Your task to perform on an android device: toggle notifications settings in the gmail app Image 0: 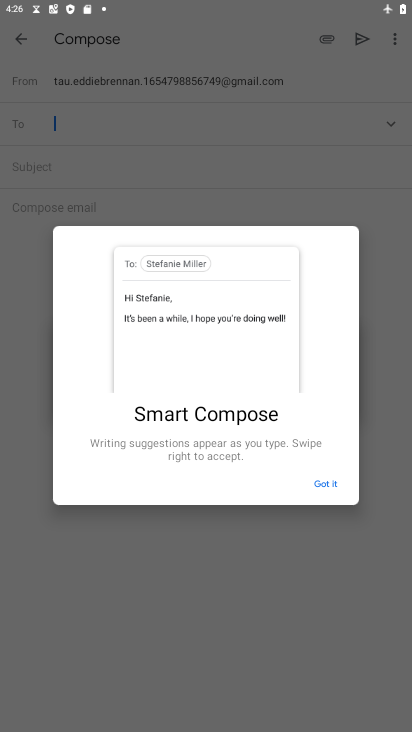
Step 0: press home button
Your task to perform on an android device: toggle notifications settings in the gmail app Image 1: 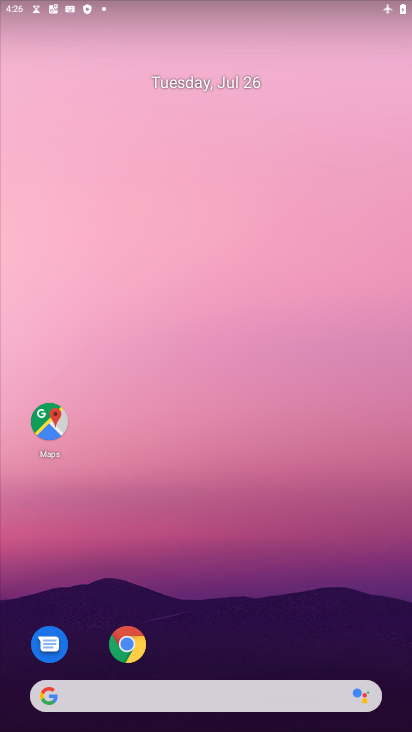
Step 1: drag from (252, 659) to (179, 198)
Your task to perform on an android device: toggle notifications settings in the gmail app Image 2: 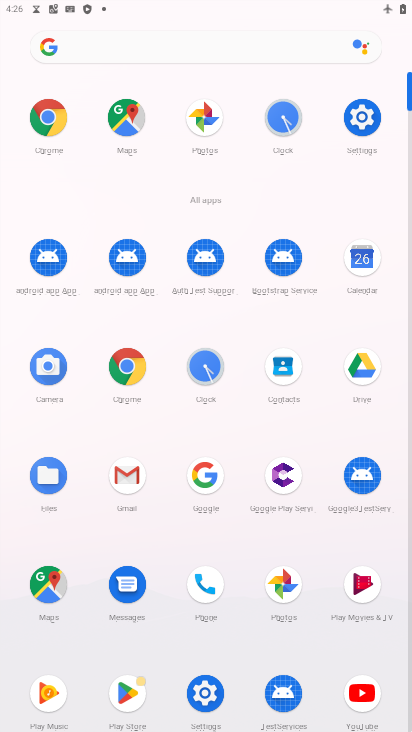
Step 2: click (127, 470)
Your task to perform on an android device: toggle notifications settings in the gmail app Image 3: 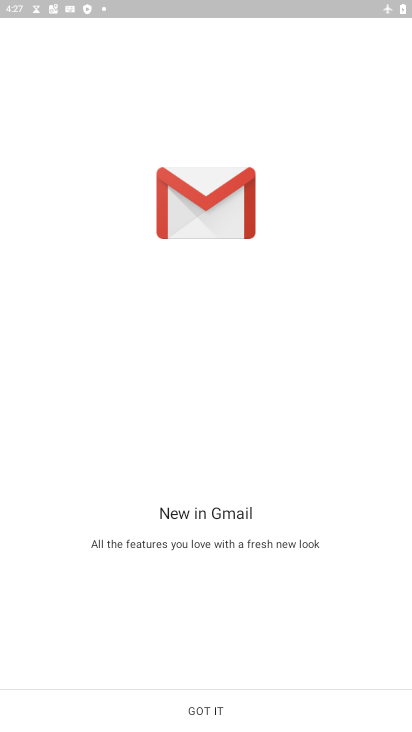
Step 3: click (207, 712)
Your task to perform on an android device: toggle notifications settings in the gmail app Image 4: 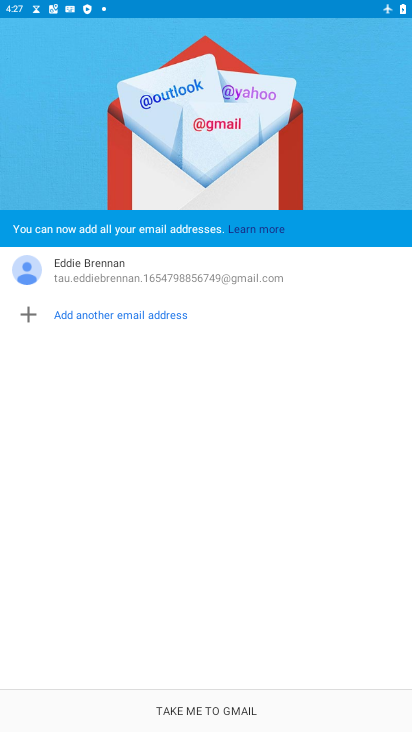
Step 4: click (207, 712)
Your task to perform on an android device: toggle notifications settings in the gmail app Image 5: 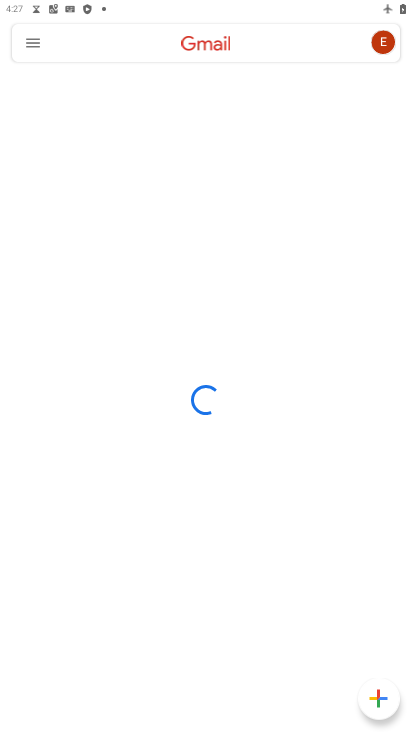
Step 5: click (32, 51)
Your task to perform on an android device: toggle notifications settings in the gmail app Image 6: 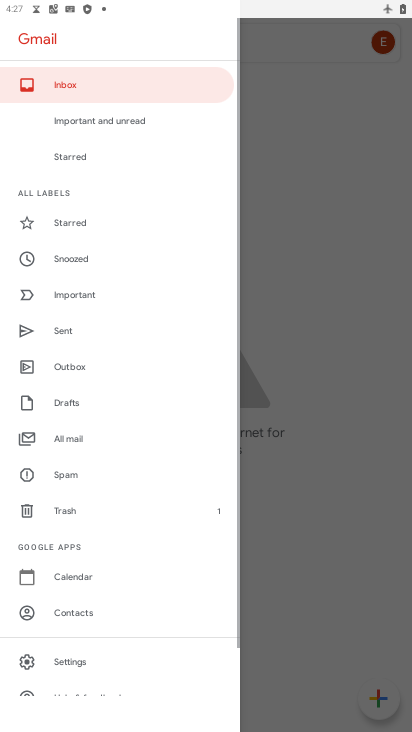
Step 6: click (102, 195)
Your task to perform on an android device: toggle notifications settings in the gmail app Image 7: 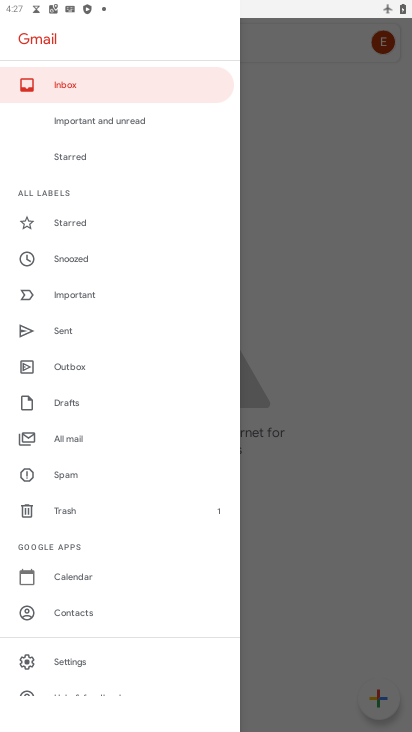
Step 7: click (154, 660)
Your task to perform on an android device: toggle notifications settings in the gmail app Image 8: 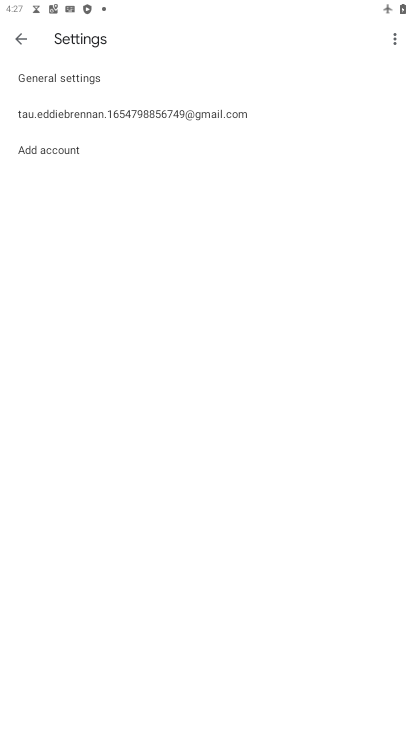
Step 8: click (187, 112)
Your task to perform on an android device: toggle notifications settings in the gmail app Image 9: 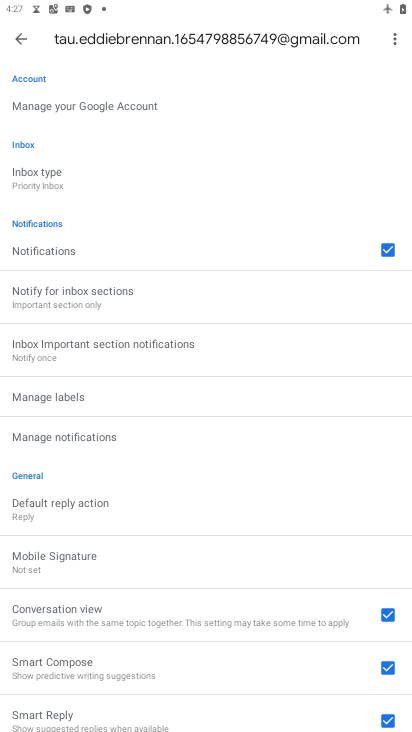
Step 9: drag from (197, 683) to (163, 437)
Your task to perform on an android device: toggle notifications settings in the gmail app Image 10: 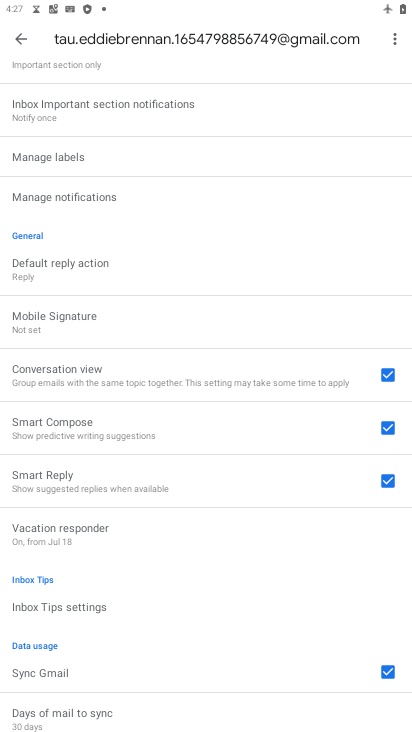
Step 10: click (118, 209)
Your task to perform on an android device: toggle notifications settings in the gmail app Image 11: 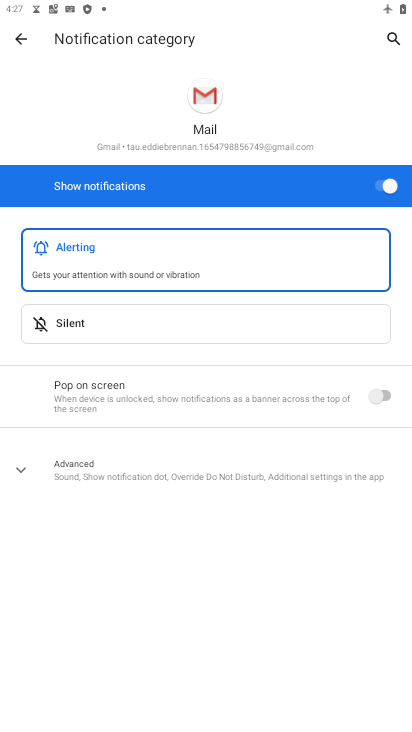
Step 11: click (287, 318)
Your task to perform on an android device: toggle notifications settings in the gmail app Image 12: 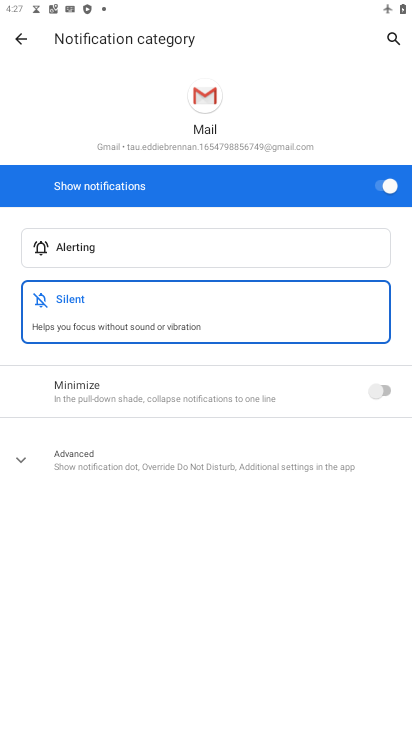
Step 12: click (383, 400)
Your task to perform on an android device: toggle notifications settings in the gmail app Image 13: 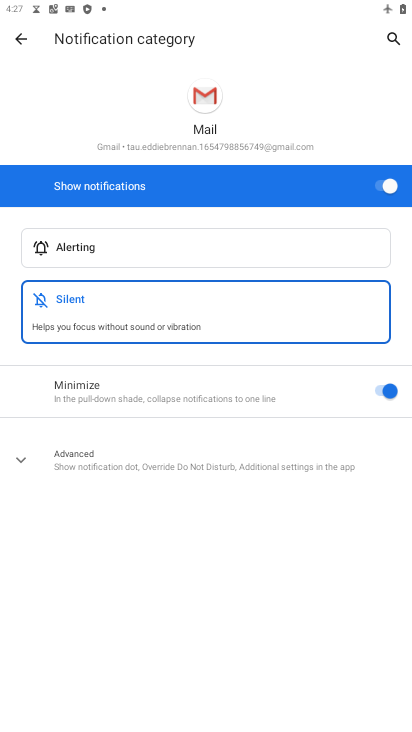
Step 13: task complete